Your task to perform on an android device: Show me the alarms in the clock app Image 0: 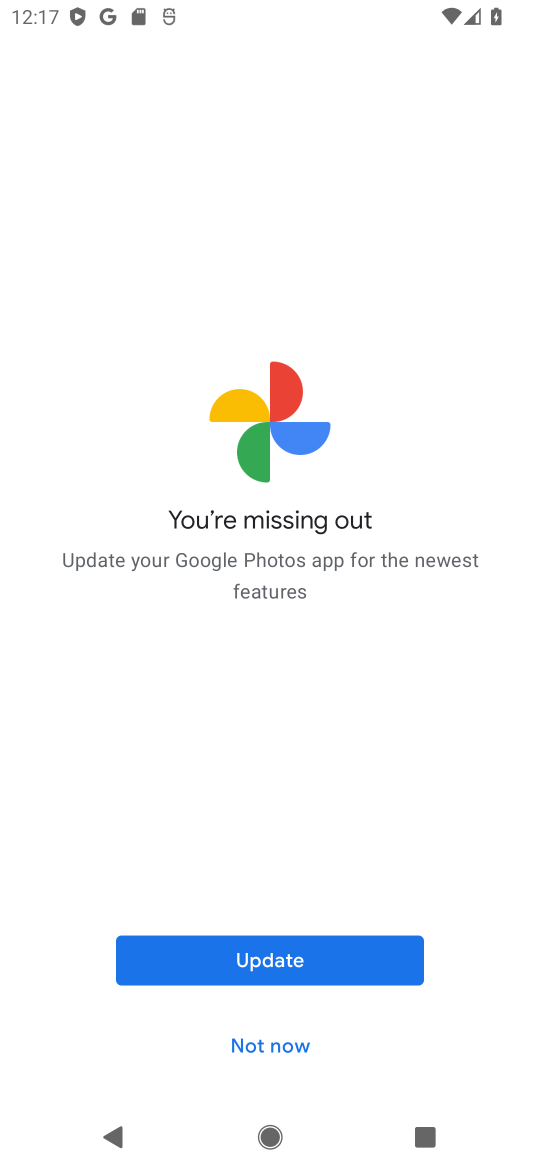
Step 0: press home button
Your task to perform on an android device: Show me the alarms in the clock app Image 1: 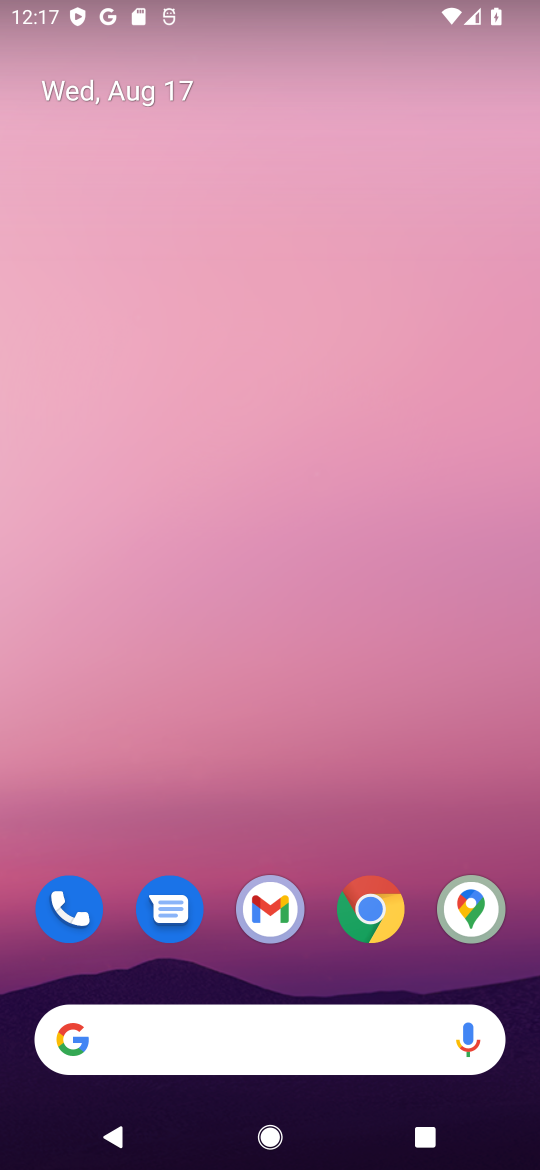
Step 1: drag from (314, 828) to (262, 110)
Your task to perform on an android device: Show me the alarms in the clock app Image 2: 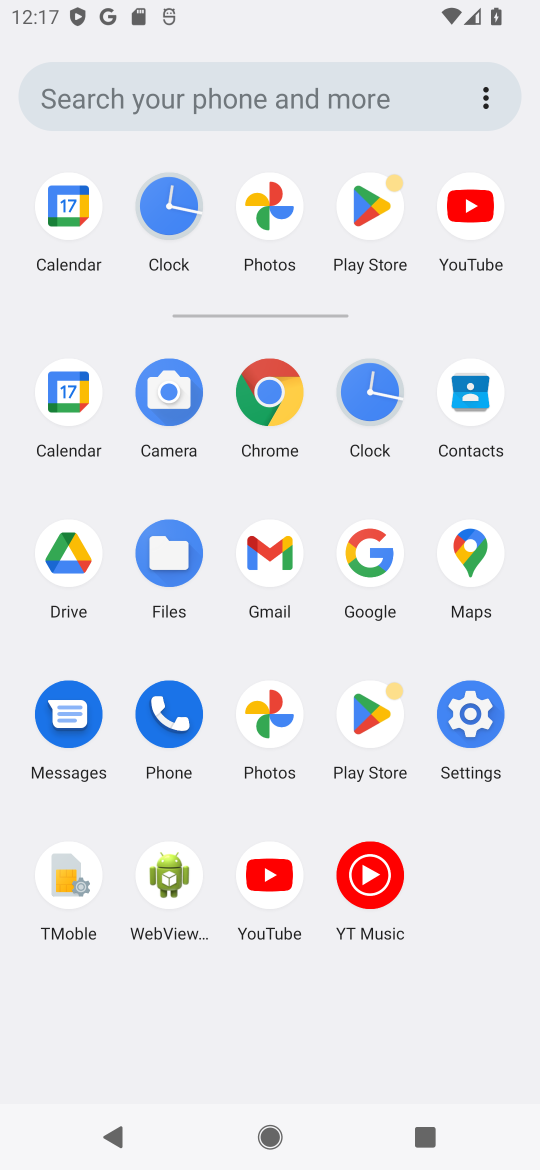
Step 2: click (363, 403)
Your task to perform on an android device: Show me the alarms in the clock app Image 3: 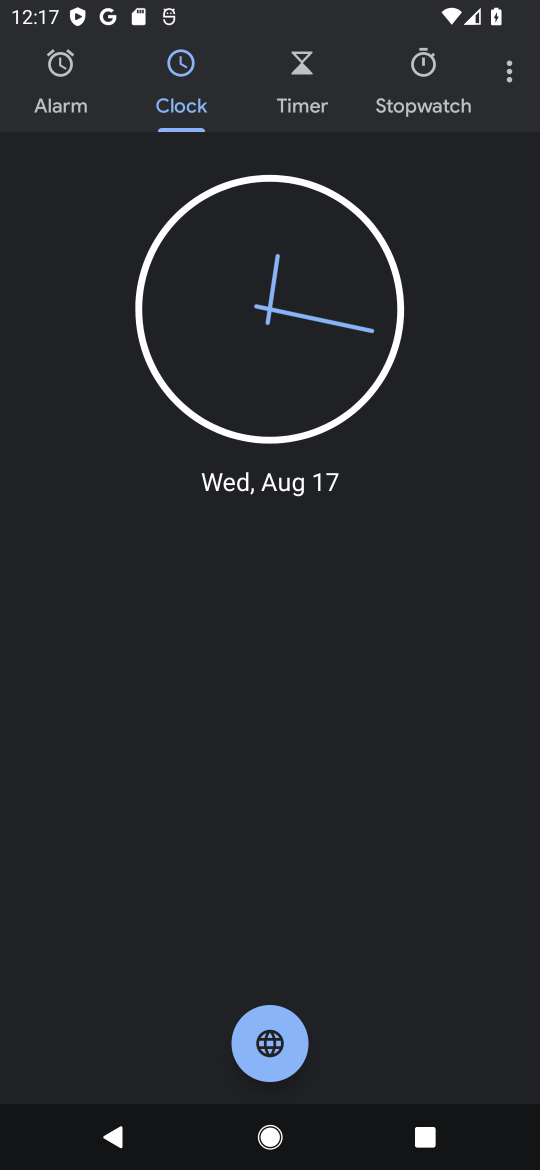
Step 3: click (61, 73)
Your task to perform on an android device: Show me the alarms in the clock app Image 4: 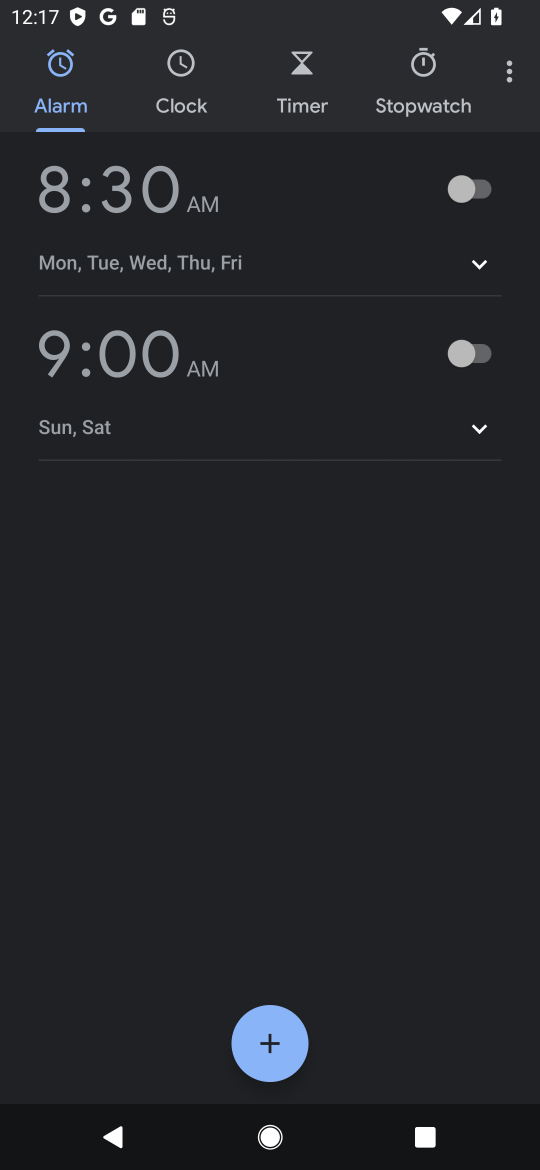
Step 4: task complete